Your task to perform on an android device: Go to privacy settings Image 0: 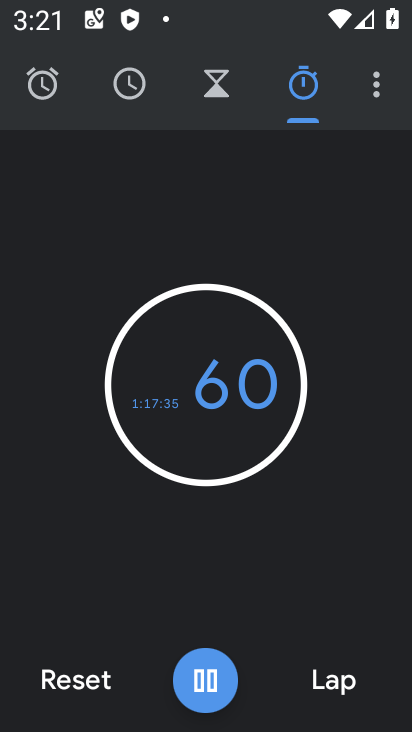
Step 0: press home button
Your task to perform on an android device: Go to privacy settings Image 1: 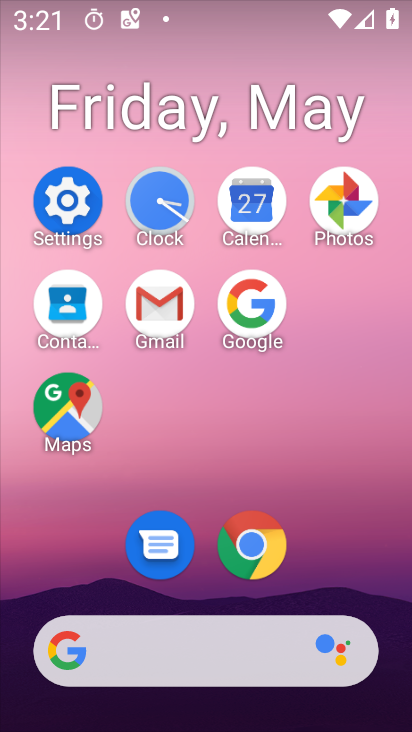
Step 1: click (55, 203)
Your task to perform on an android device: Go to privacy settings Image 2: 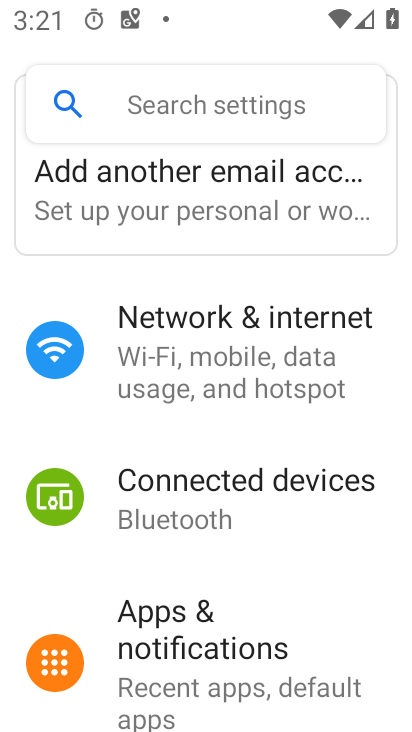
Step 2: drag from (182, 540) to (279, 88)
Your task to perform on an android device: Go to privacy settings Image 3: 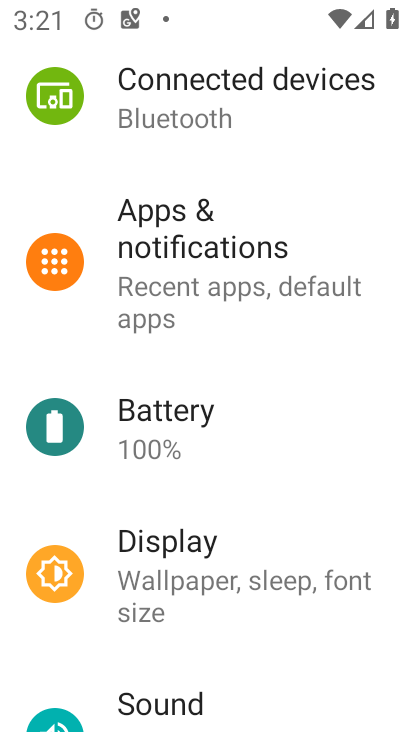
Step 3: drag from (234, 615) to (311, 106)
Your task to perform on an android device: Go to privacy settings Image 4: 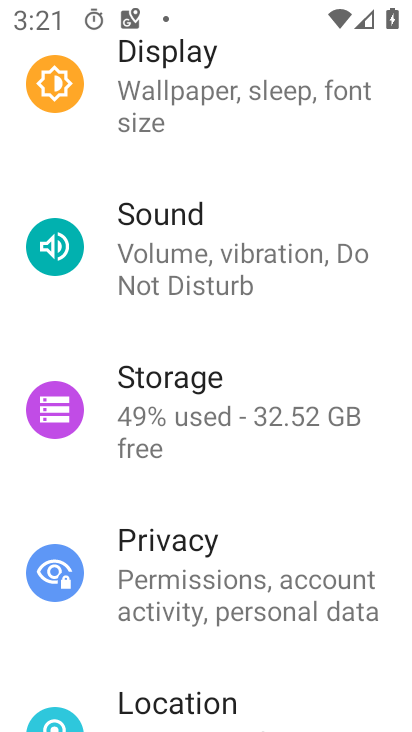
Step 4: click (196, 629)
Your task to perform on an android device: Go to privacy settings Image 5: 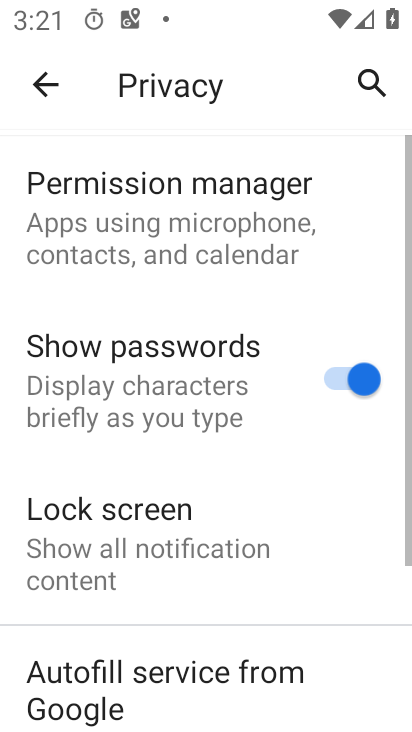
Step 5: task complete